Your task to perform on an android device: Open the web browser Image 0: 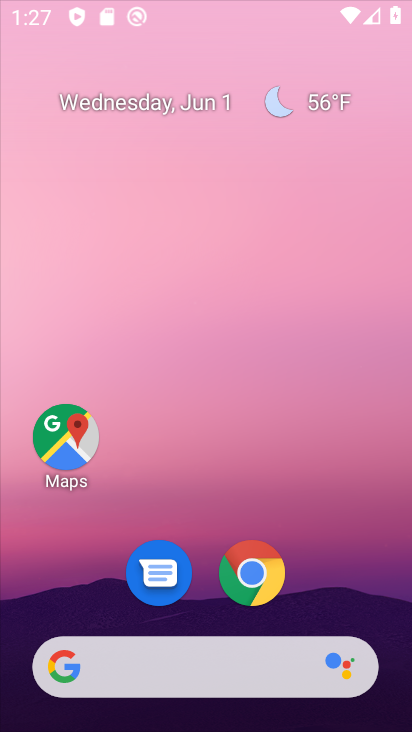
Step 0: click (319, 13)
Your task to perform on an android device: Open the web browser Image 1: 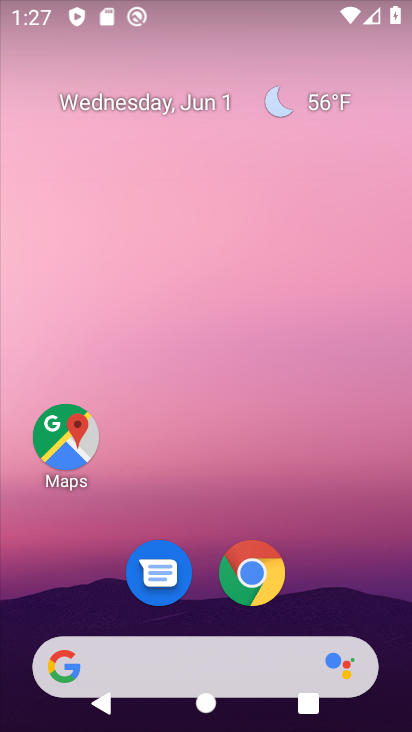
Step 1: drag from (202, 627) to (196, 197)
Your task to perform on an android device: Open the web browser Image 2: 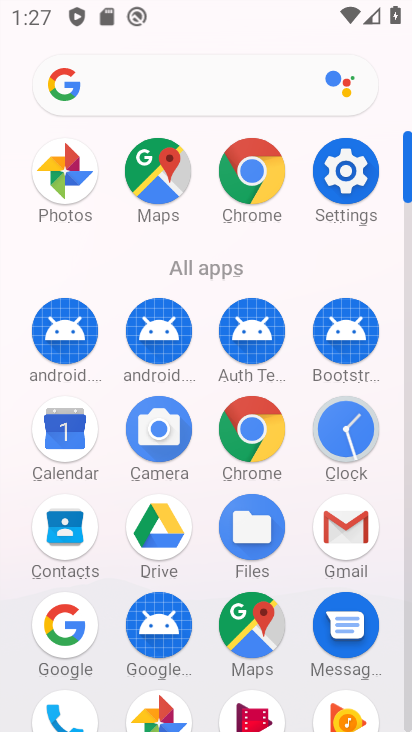
Step 2: click (258, 170)
Your task to perform on an android device: Open the web browser Image 3: 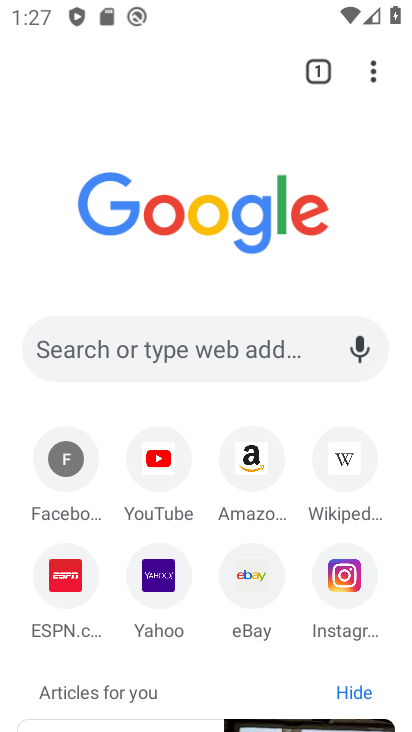
Step 3: task complete